Your task to perform on an android device: toggle notification dots Image 0: 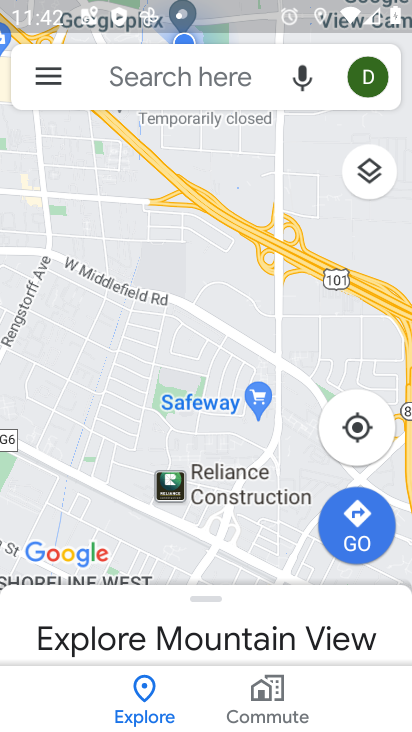
Step 0: press home button
Your task to perform on an android device: toggle notification dots Image 1: 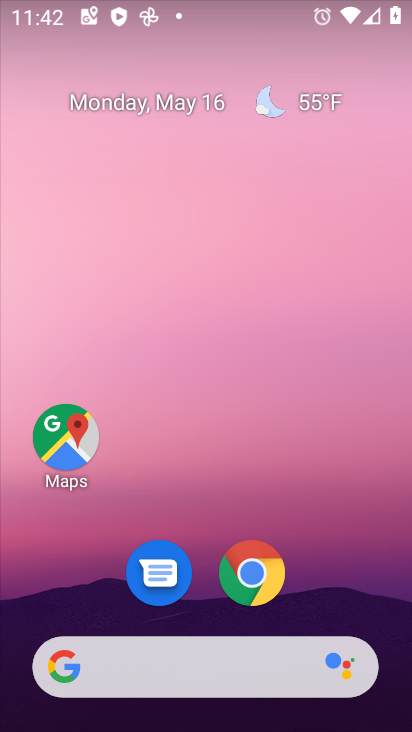
Step 1: drag from (367, 587) to (327, 203)
Your task to perform on an android device: toggle notification dots Image 2: 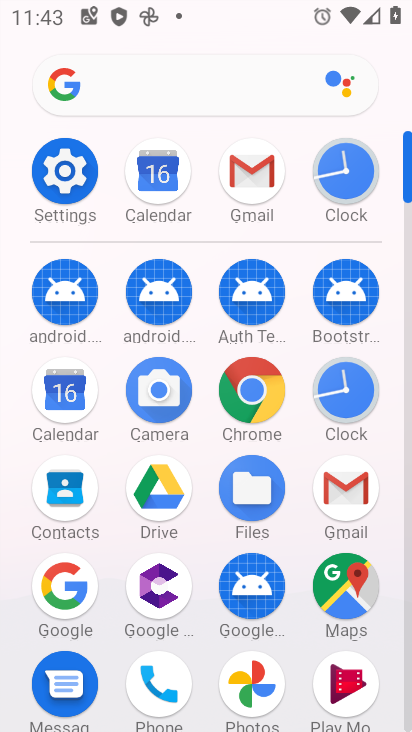
Step 2: click (60, 199)
Your task to perform on an android device: toggle notification dots Image 3: 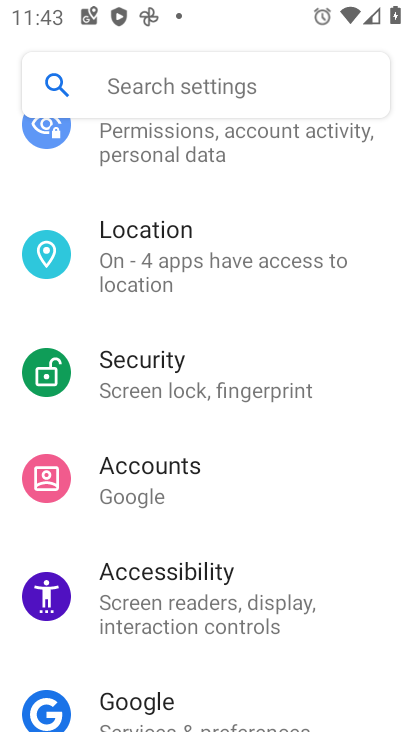
Step 3: drag from (290, 532) to (270, 704)
Your task to perform on an android device: toggle notification dots Image 4: 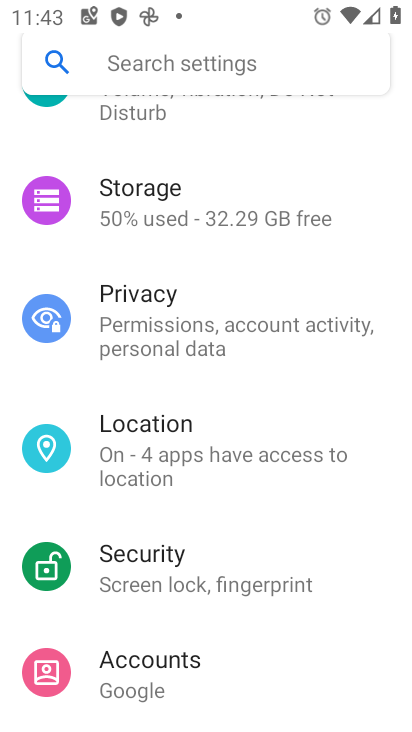
Step 4: drag from (241, 224) to (274, 678)
Your task to perform on an android device: toggle notification dots Image 5: 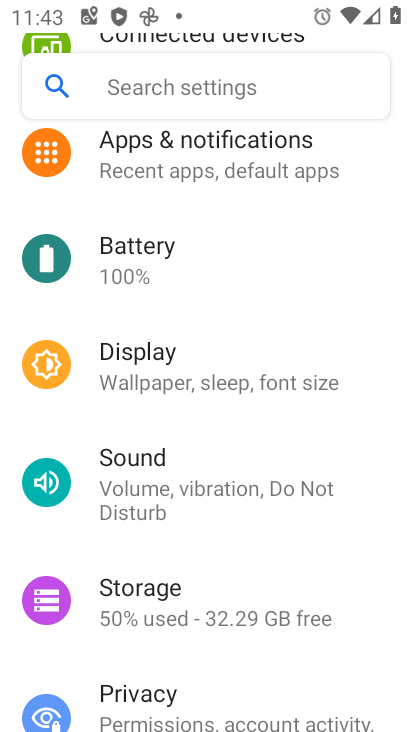
Step 5: click (207, 150)
Your task to perform on an android device: toggle notification dots Image 6: 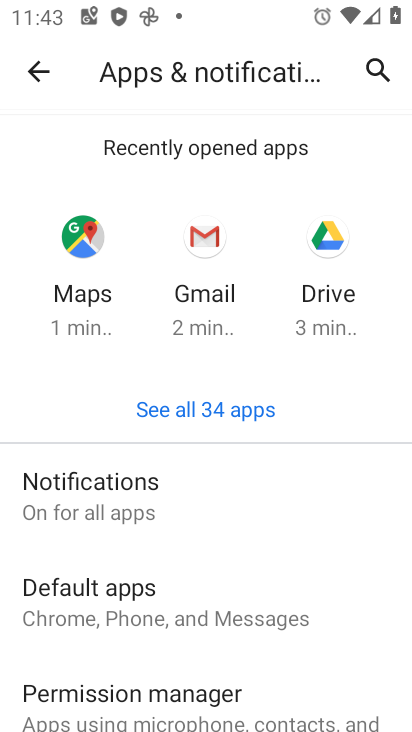
Step 6: click (178, 503)
Your task to perform on an android device: toggle notification dots Image 7: 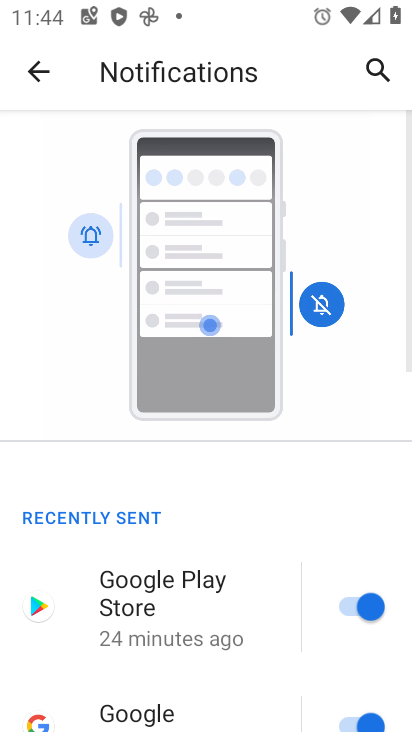
Step 7: drag from (279, 580) to (266, 168)
Your task to perform on an android device: toggle notification dots Image 8: 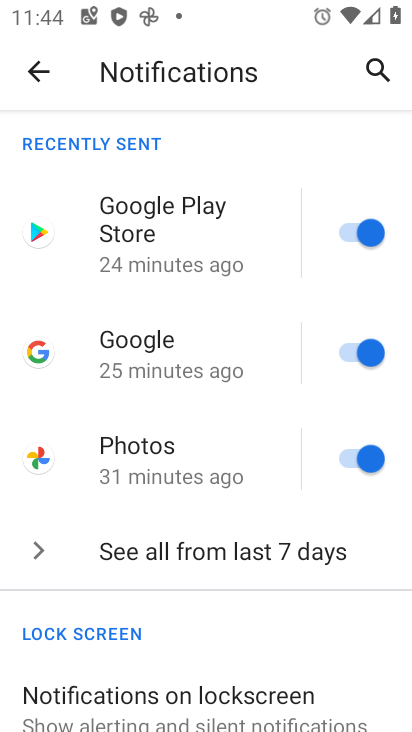
Step 8: drag from (277, 649) to (263, 303)
Your task to perform on an android device: toggle notification dots Image 9: 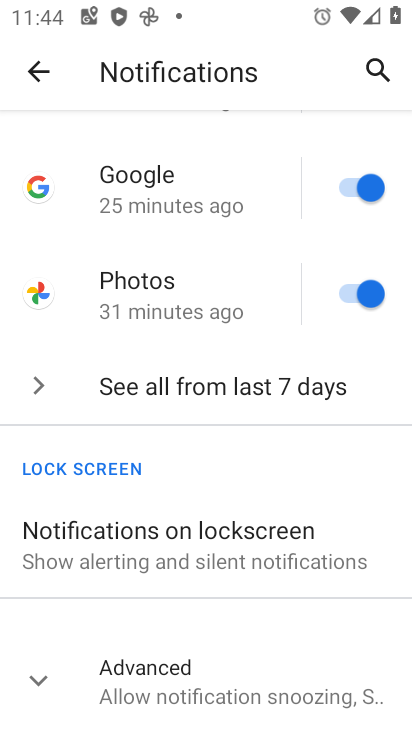
Step 9: click (214, 677)
Your task to perform on an android device: toggle notification dots Image 10: 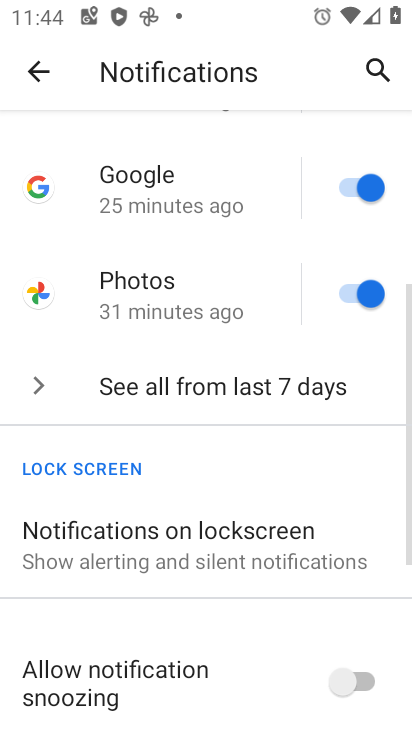
Step 10: drag from (214, 677) to (156, 315)
Your task to perform on an android device: toggle notification dots Image 11: 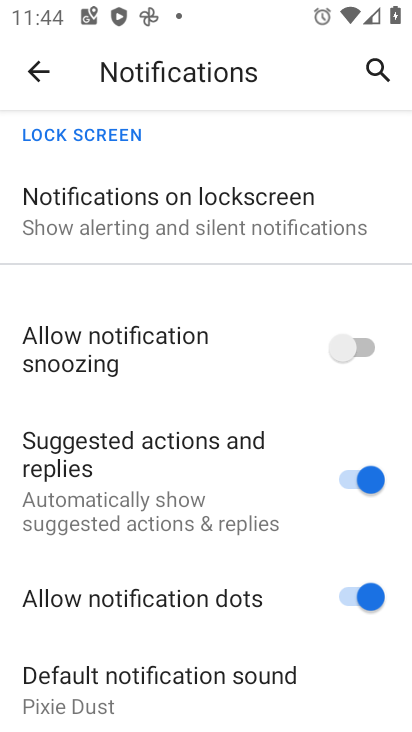
Step 11: click (349, 587)
Your task to perform on an android device: toggle notification dots Image 12: 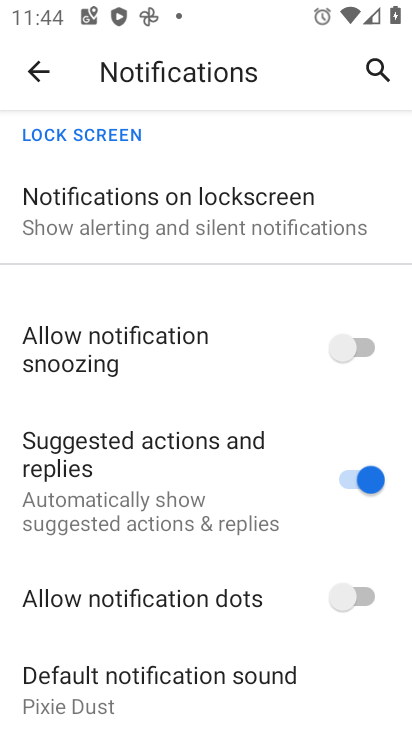
Step 12: task complete